Your task to perform on an android device: open chrome and create a bookmark for the current page Image 0: 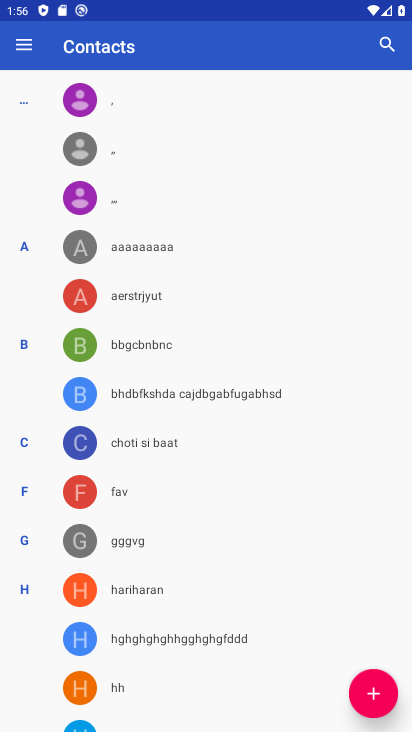
Step 0: press home button
Your task to perform on an android device: open chrome and create a bookmark for the current page Image 1: 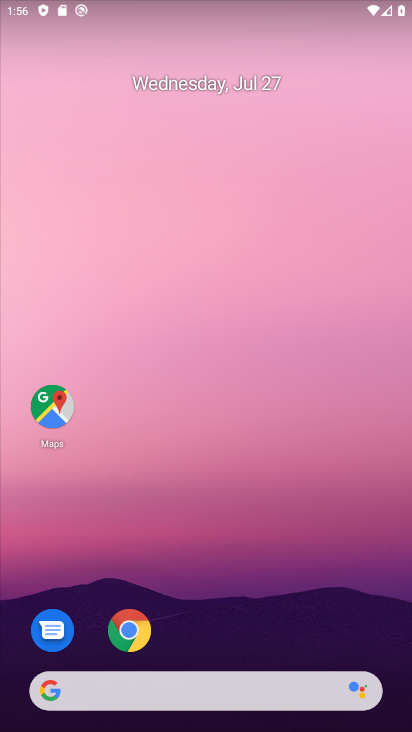
Step 1: click (130, 635)
Your task to perform on an android device: open chrome and create a bookmark for the current page Image 2: 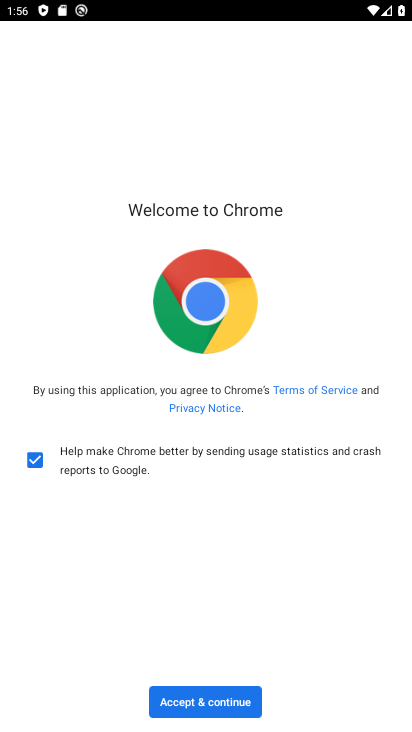
Step 2: click (235, 709)
Your task to perform on an android device: open chrome and create a bookmark for the current page Image 3: 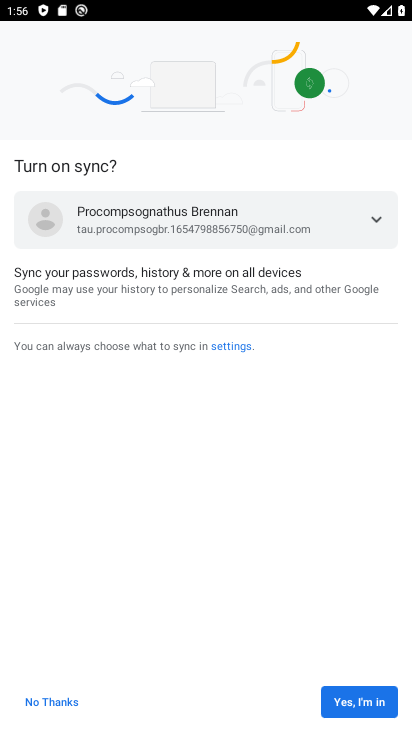
Step 3: click (357, 709)
Your task to perform on an android device: open chrome and create a bookmark for the current page Image 4: 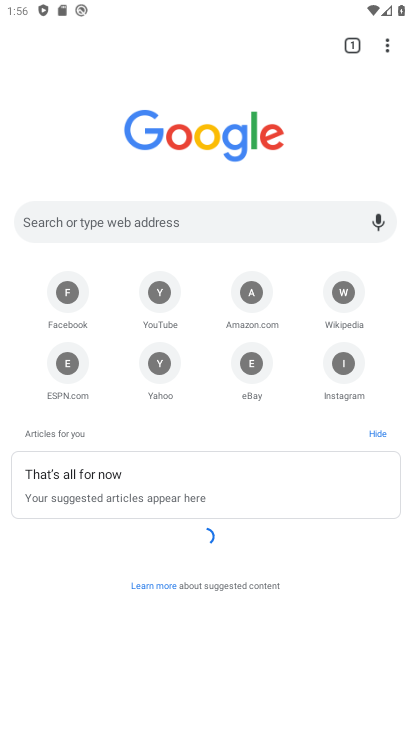
Step 4: click (382, 42)
Your task to perform on an android device: open chrome and create a bookmark for the current page Image 5: 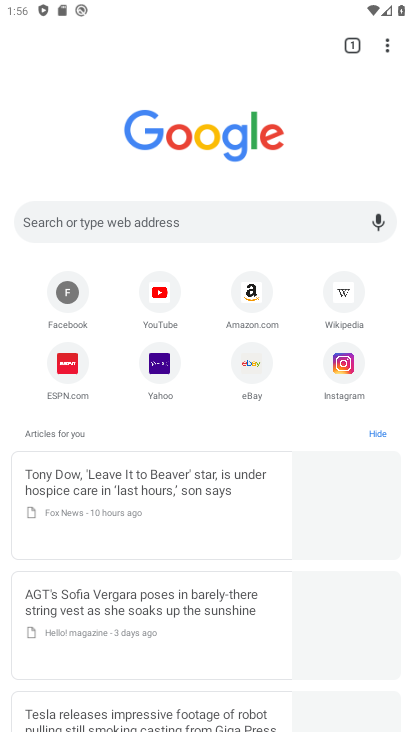
Step 5: click (391, 54)
Your task to perform on an android device: open chrome and create a bookmark for the current page Image 6: 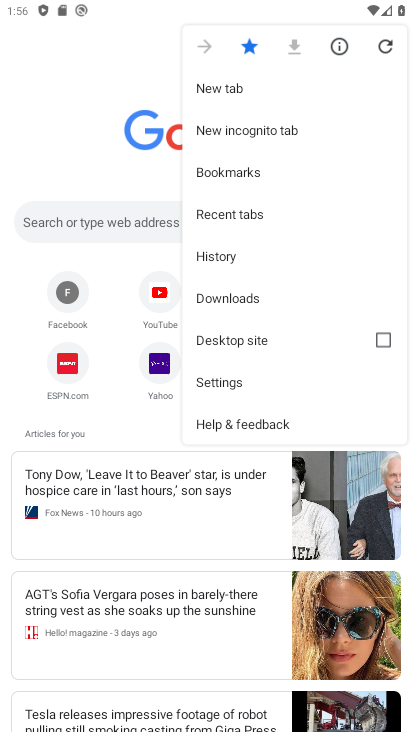
Step 6: task complete